Your task to perform on an android device: open the mobile data screen to see how much data has been used Image 0: 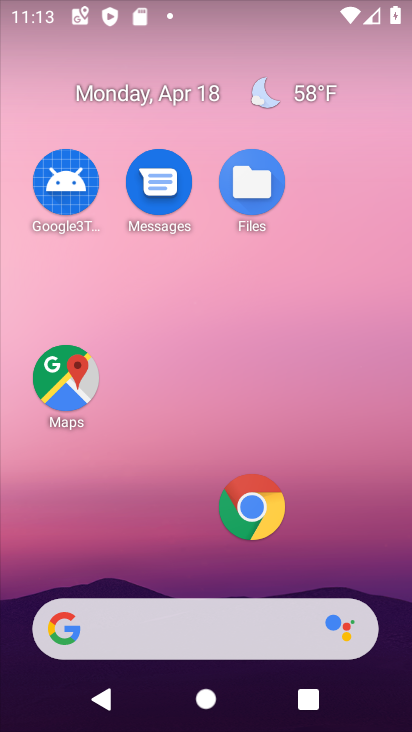
Step 0: drag from (200, 589) to (46, 112)
Your task to perform on an android device: open the mobile data screen to see how much data has been used Image 1: 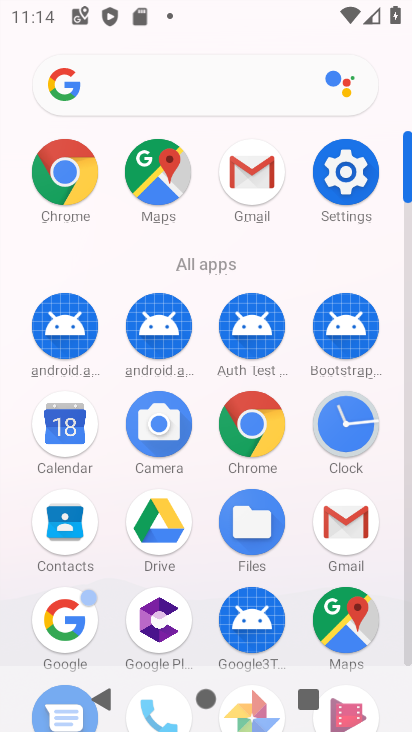
Step 1: click (358, 181)
Your task to perform on an android device: open the mobile data screen to see how much data has been used Image 2: 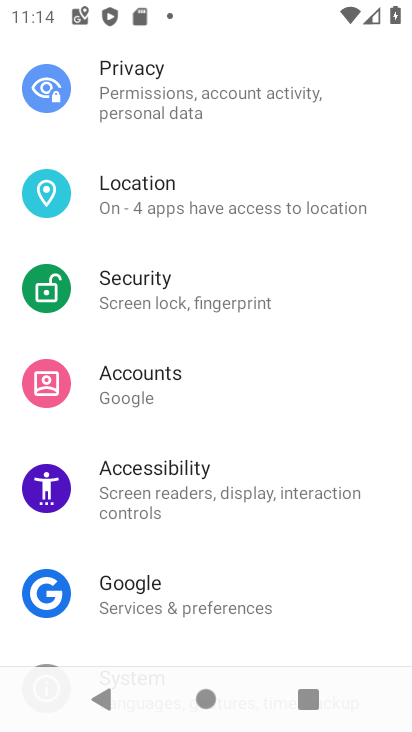
Step 2: drag from (262, 138) to (173, 680)
Your task to perform on an android device: open the mobile data screen to see how much data has been used Image 3: 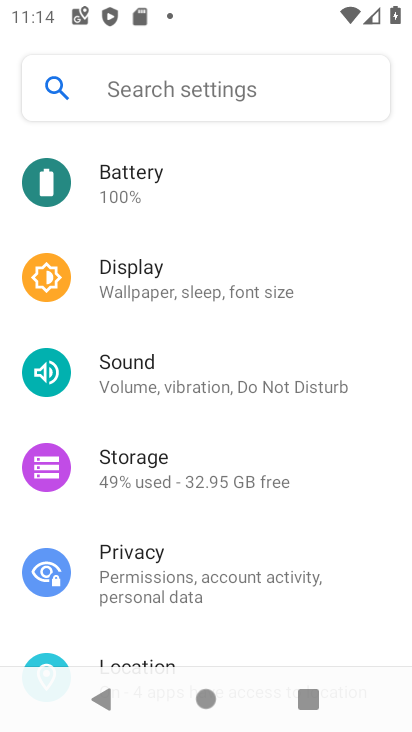
Step 3: drag from (202, 152) to (151, 511)
Your task to perform on an android device: open the mobile data screen to see how much data has been used Image 4: 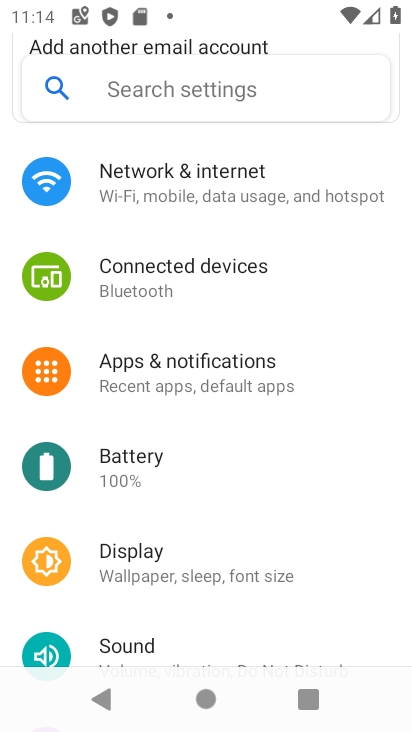
Step 4: click (164, 202)
Your task to perform on an android device: open the mobile data screen to see how much data has been used Image 5: 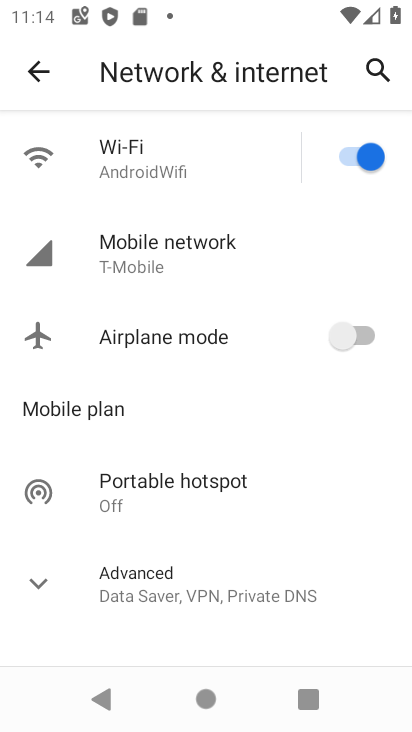
Step 5: click (179, 257)
Your task to perform on an android device: open the mobile data screen to see how much data has been used Image 6: 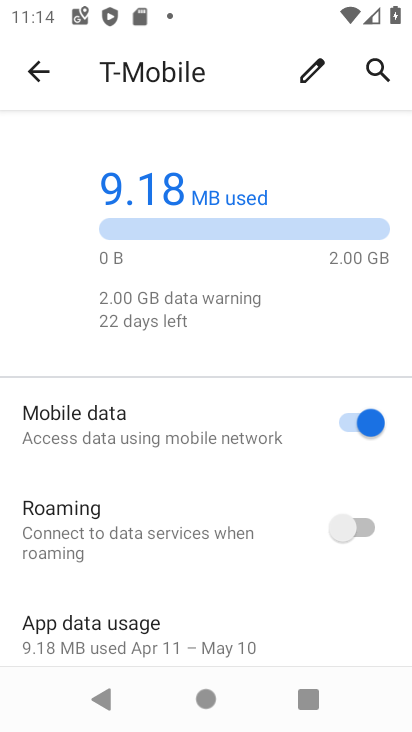
Step 6: task complete